Your task to perform on an android device: Open Android settings Image 0: 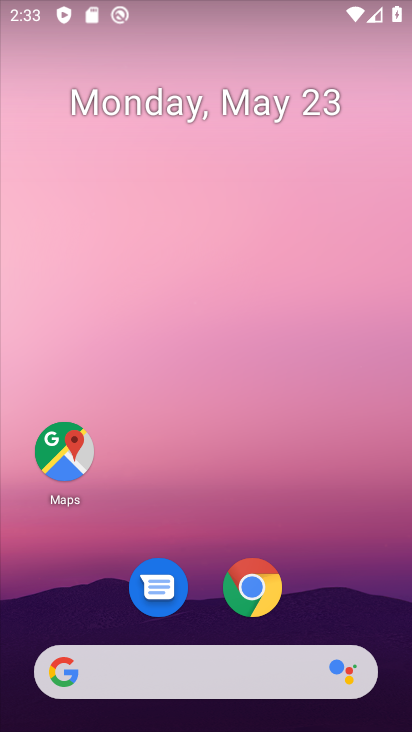
Step 0: drag from (204, 602) to (213, 172)
Your task to perform on an android device: Open Android settings Image 1: 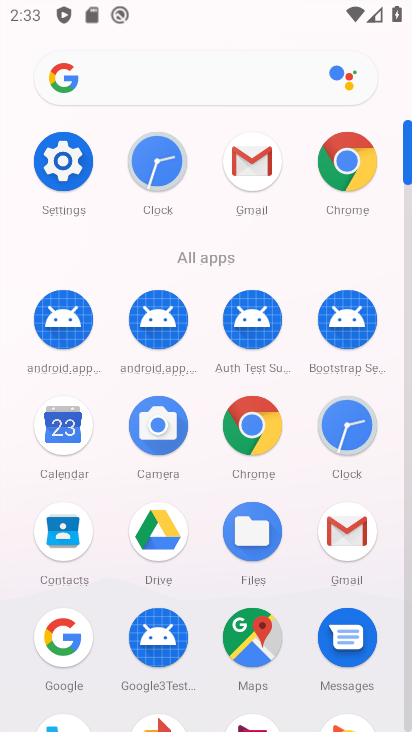
Step 1: click (62, 161)
Your task to perform on an android device: Open Android settings Image 2: 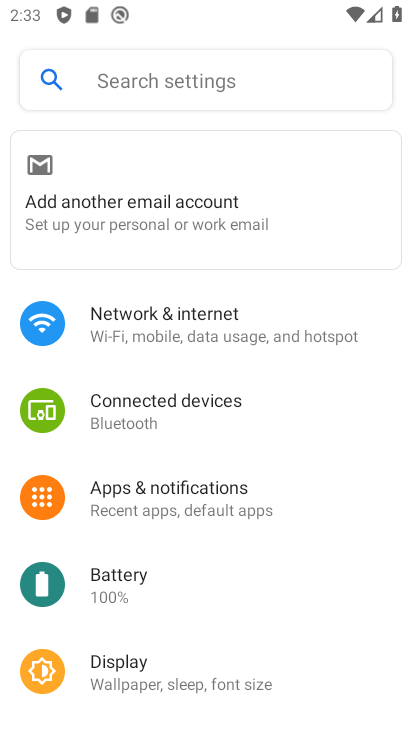
Step 2: task complete